Your task to perform on an android device: Turn on the flashlight Image 0: 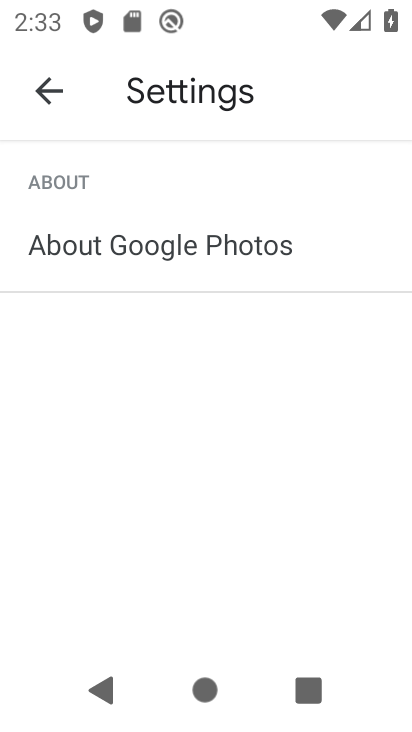
Step 0: press home button
Your task to perform on an android device: Turn on the flashlight Image 1: 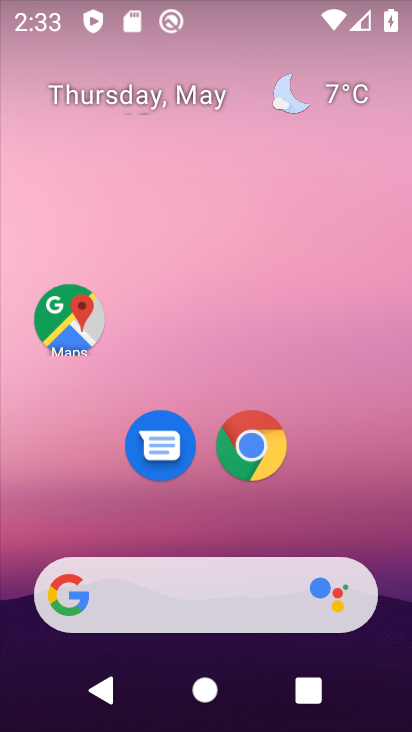
Step 1: task complete